Your task to perform on an android device: change timer sound Image 0: 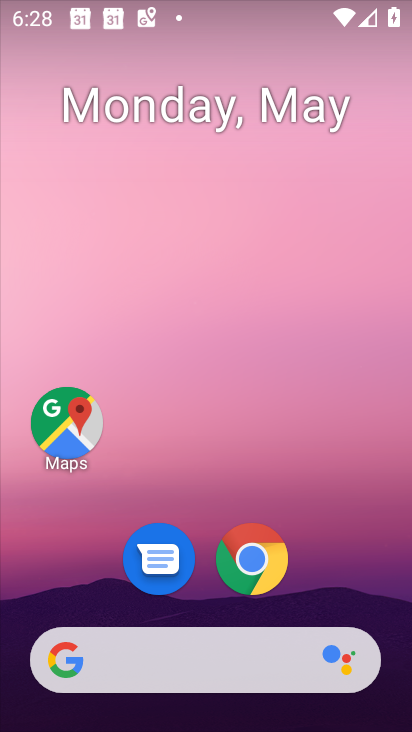
Step 0: drag from (386, 632) to (359, 20)
Your task to perform on an android device: change timer sound Image 1: 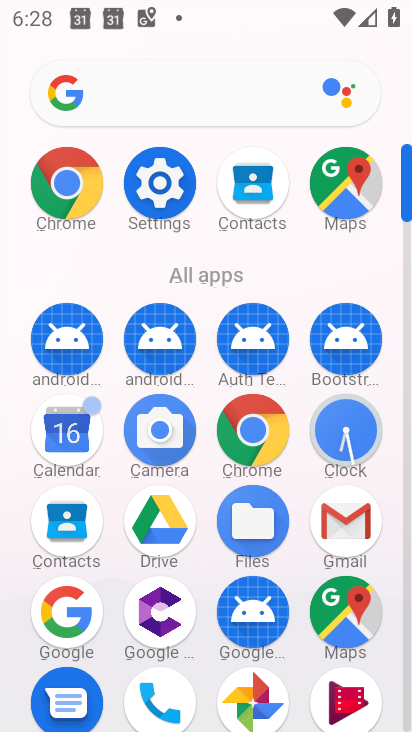
Step 1: click (338, 442)
Your task to perform on an android device: change timer sound Image 2: 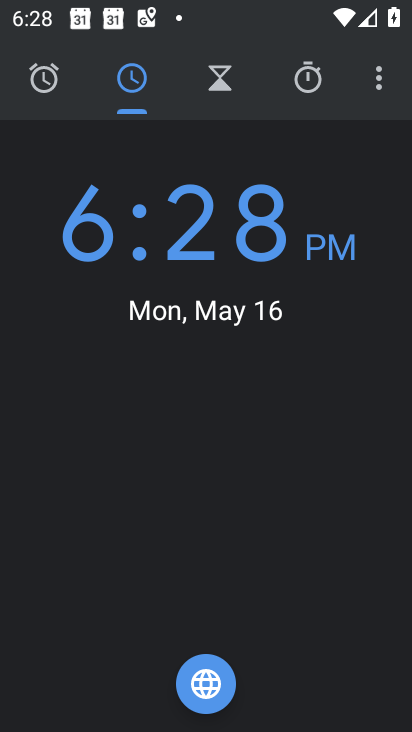
Step 2: click (379, 87)
Your task to perform on an android device: change timer sound Image 3: 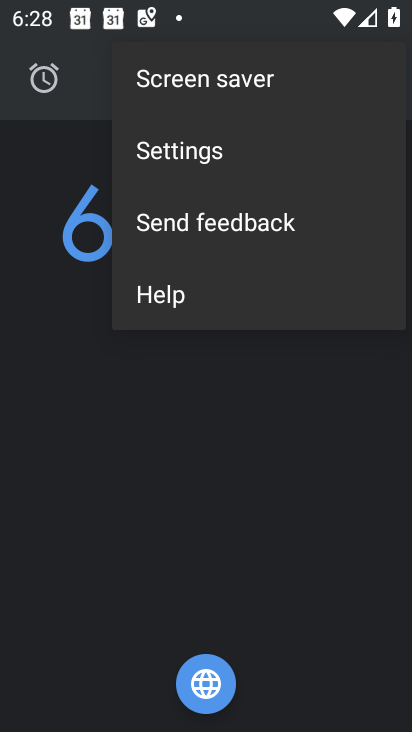
Step 3: click (182, 163)
Your task to perform on an android device: change timer sound Image 4: 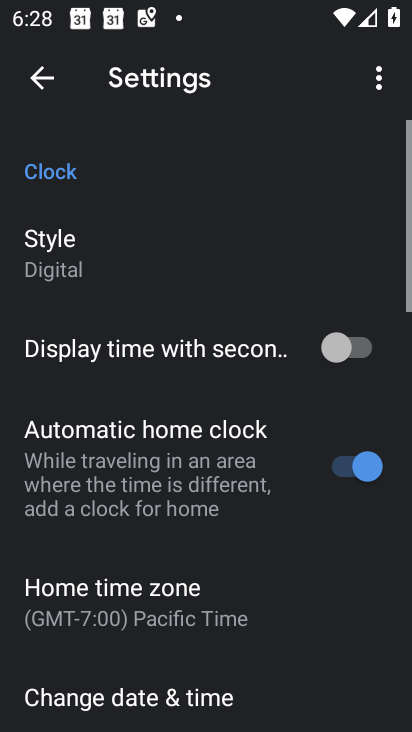
Step 4: drag from (129, 565) to (317, 119)
Your task to perform on an android device: change timer sound Image 5: 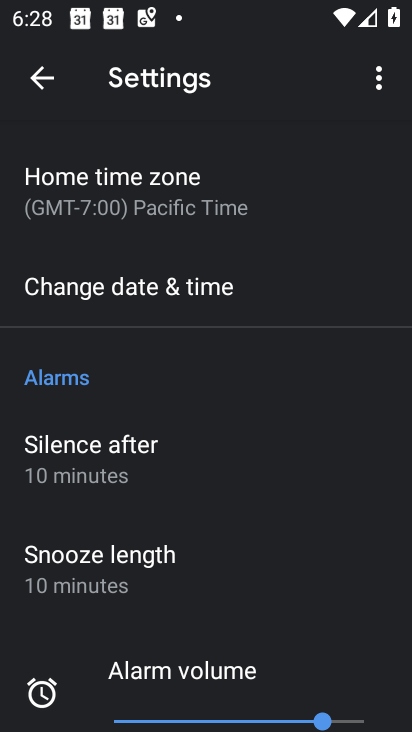
Step 5: drag from (72, 609) to (228, 137)
Your task to perform on an android device: change timer sound Image 6: 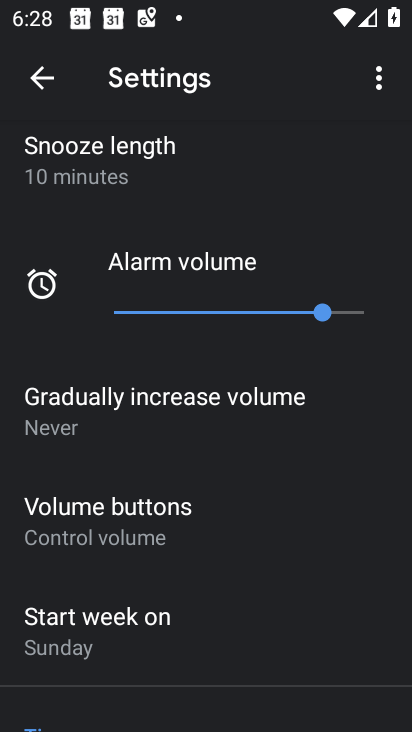
Step 6: drag from (143, 581) to (208, 182)
Your task to perform on an android device: change timer sound Image 7: 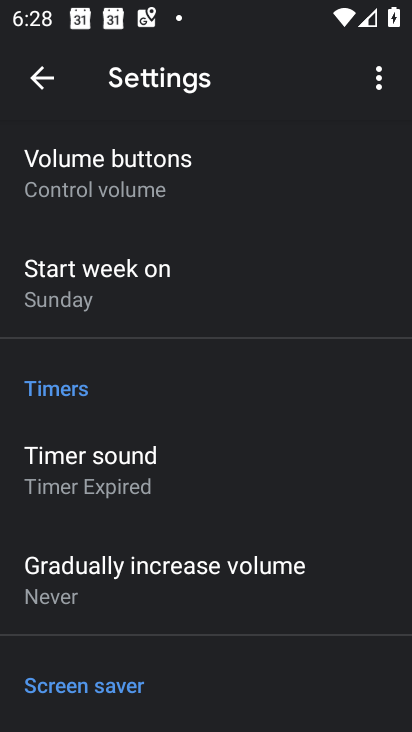
Step 7: click (140, 483)
Your task to perform on an android device: change timer sound Image 8: 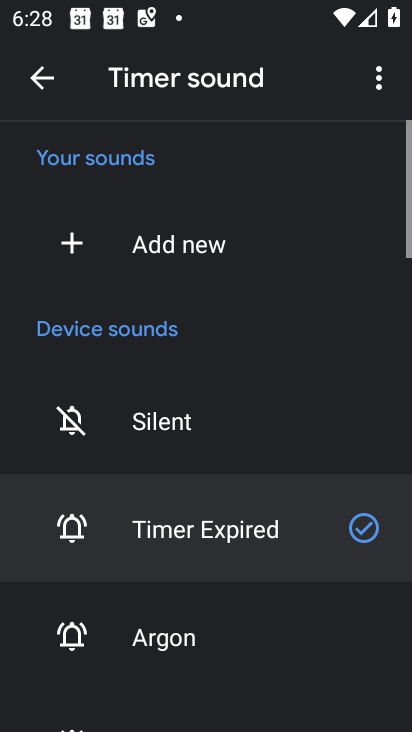
Step 8: click (148, 627)
Your task to perform on an android device: change timer sound Image 9: 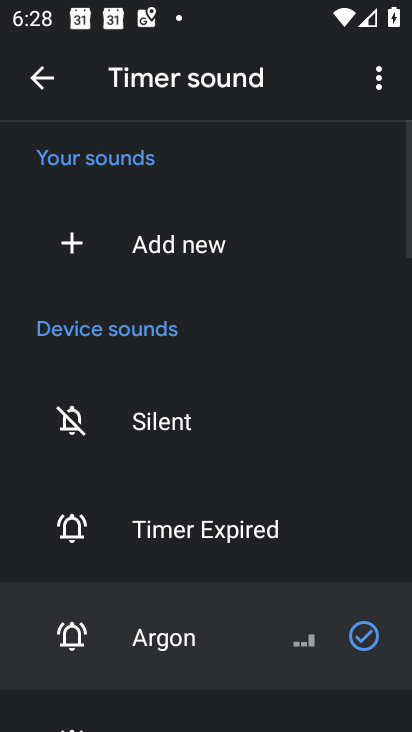
Step 9: task complete